Your task to perform on an android device: Open Chrome and go to settings Image 0: 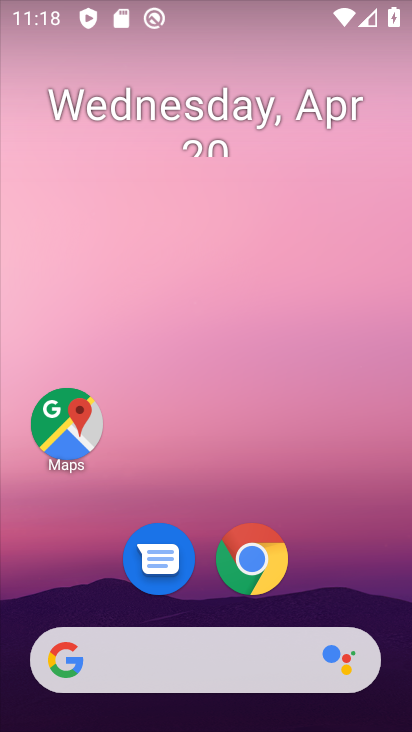
Step 0: click (262, 561)
Your task to perform on an android device: Open Chrome and go to settings Image 1: 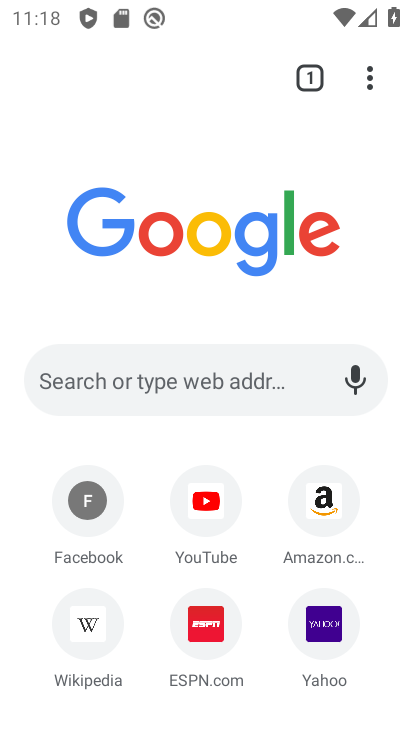
Step 1: click (370, 76)
Your task to perform on an android device: Open Chrome and go to settings Image 2: 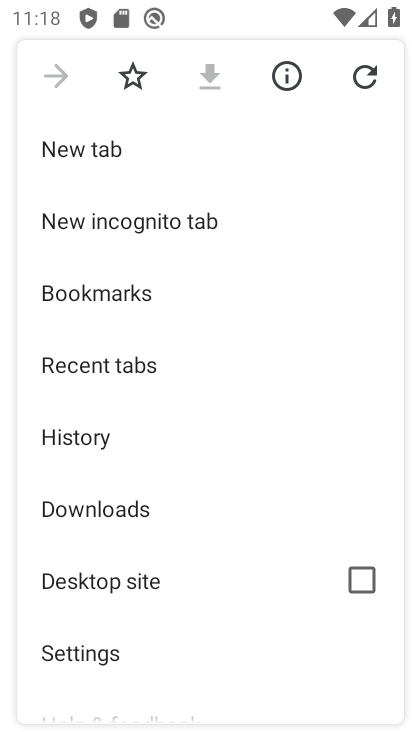
Step 2: click (164, 647)
Your task to perform on an android device: Open Chrome and go to settings Image 3: 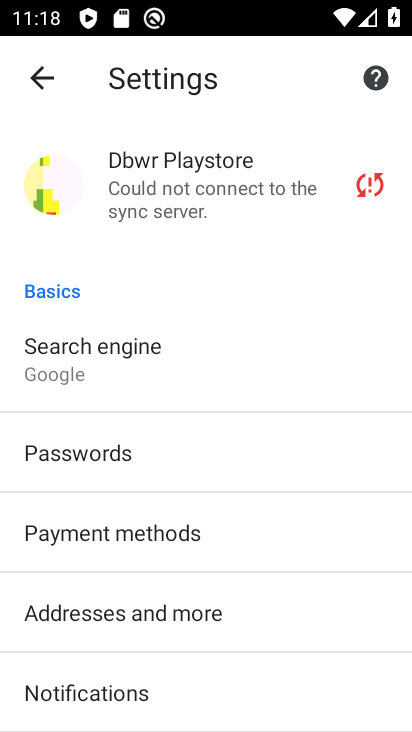
Step 3: task complete